Your task to perform on an android device: set default search engine in the chrome app Image 0: 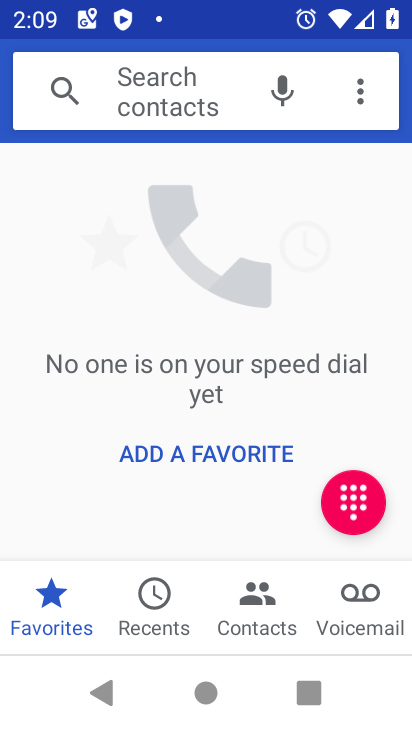
Step 0: press home button
Your task to perform on an android device: set default search engine in the chrome app Image 1: 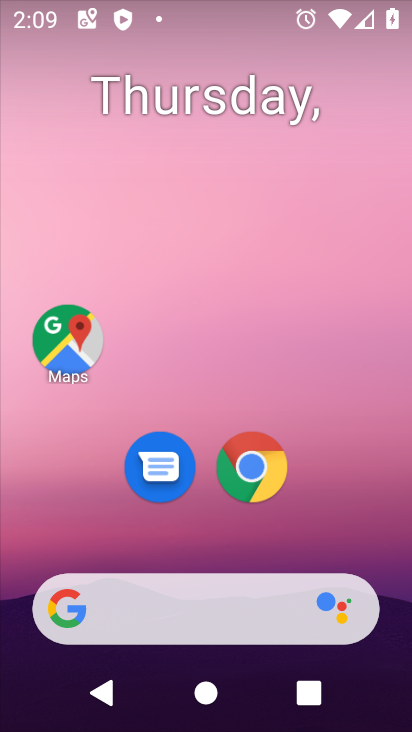
Step 1: drag from (370, 488) to (294, 97)
Your task to perform on an android device: set default search engine in the chrome app Image 2: 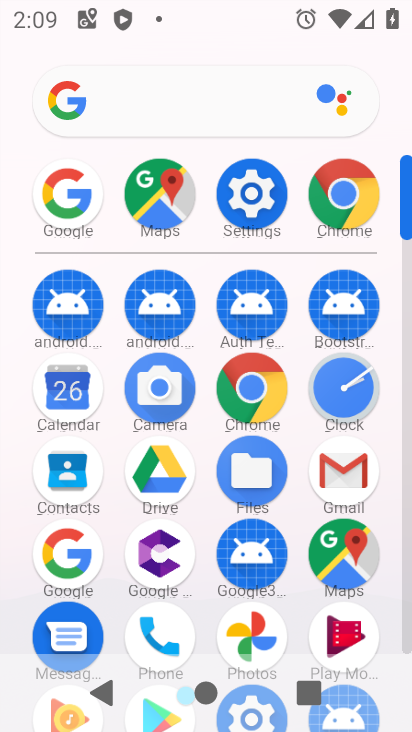
Step 2: click (347, 202)
Your task to perform on an android device: set default search engine in the chrome app Image 3: 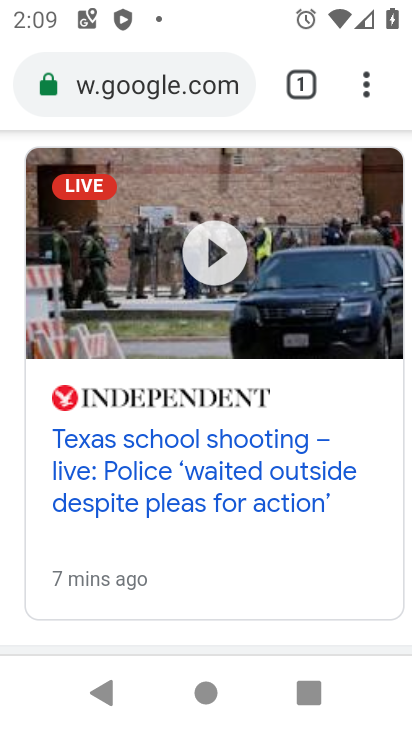
Step 3: drag from (359, 83) to (146, 524)
Your task to perform on an android device: set default search engine in the chrome app Image 4: 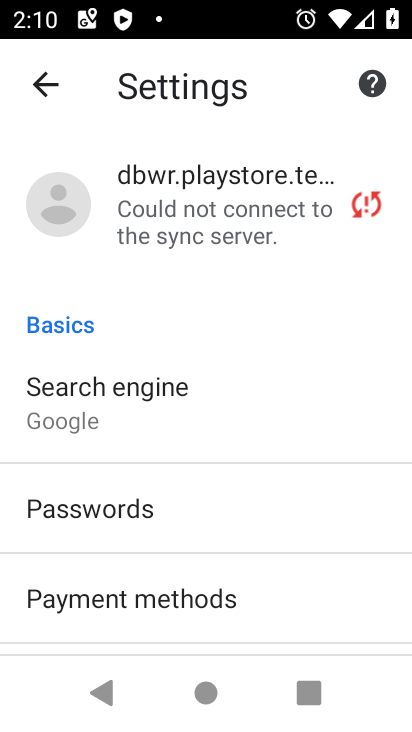
Step 4: click (153, 411)
Your task to perform on an android device: set default search engine in the chrome app Image 5: 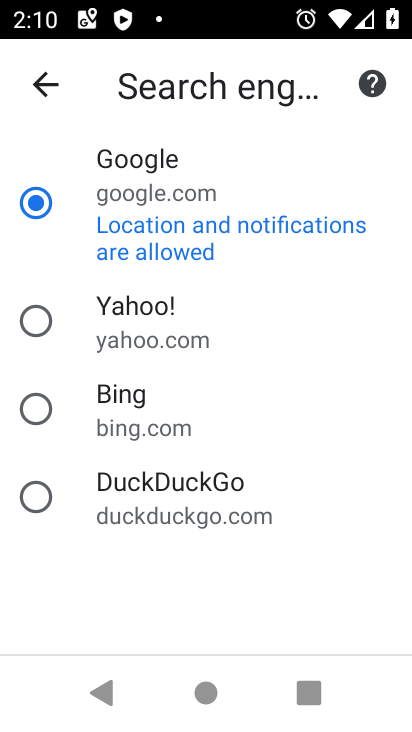
Step 5: click (106, 331)
Your task to perform on an android device: set default search engine in the chrome app Image 6: 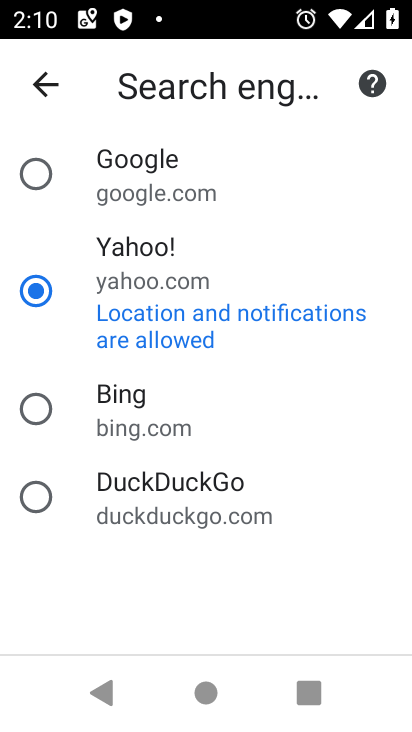
Step 6: task complete